Your task to perform on an android device: Open Chrome and go to settings Image 0: 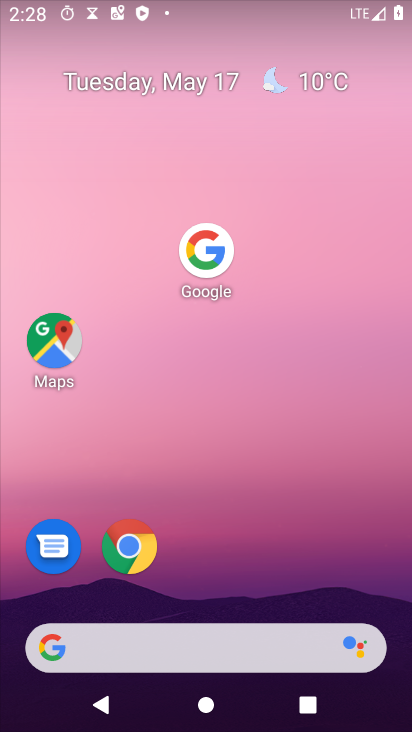
Step 0: press home button
Your task to perform on an android device: Open Chrome and go to settings Image 1: 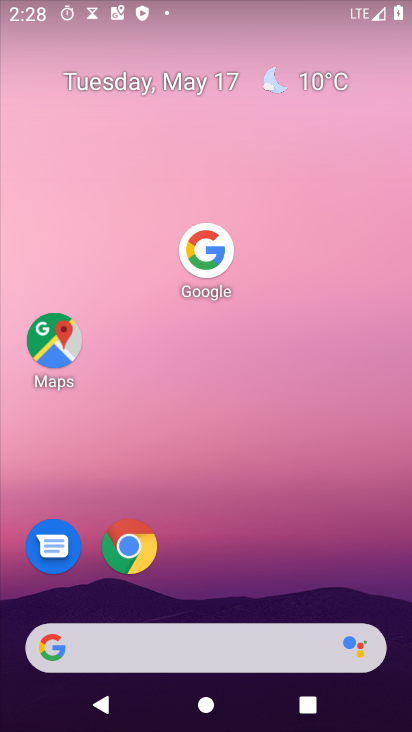
Step 1: click (139, 552)
Your task to perform on an android device: Open Chrome and go to settings Image 2: 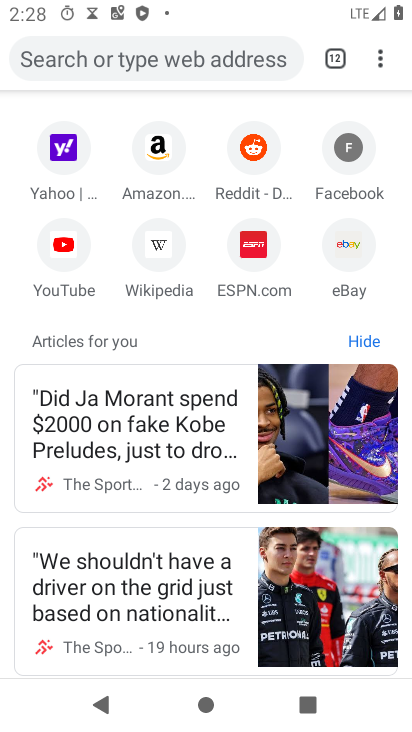
Step 2: task complete